Your task to perform on an android device: create a new album in the google photos Image 0: 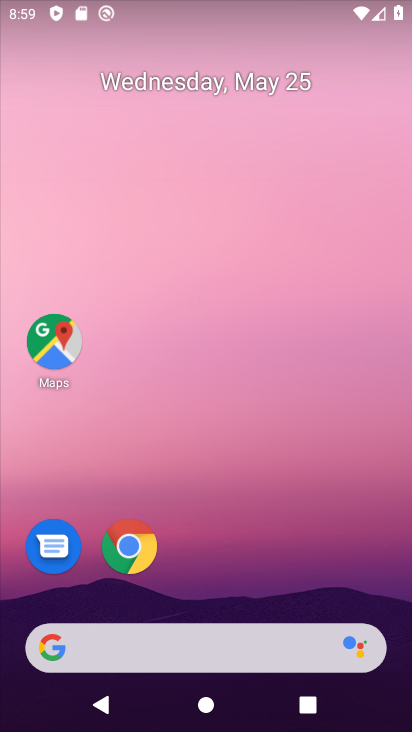
Step 0: drag from (288, 411) to (288, 279)
Your task to perform on an android device: create a new album in the google photos Image 1: 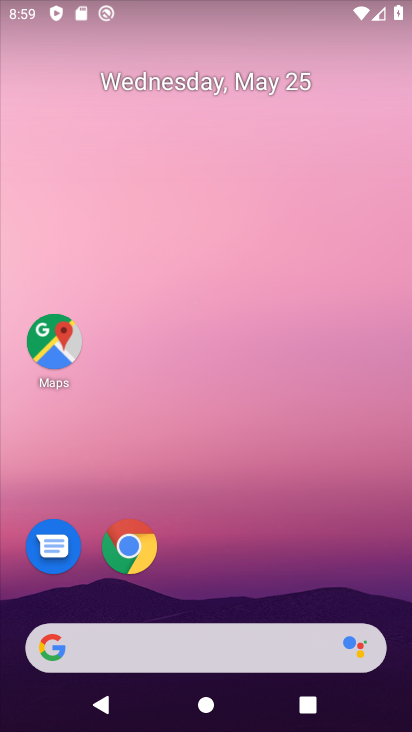
Step 1: drag from (217, 548) to (239, 256)
Your task to perform on an android device: create a new album in the google photos Image 2: 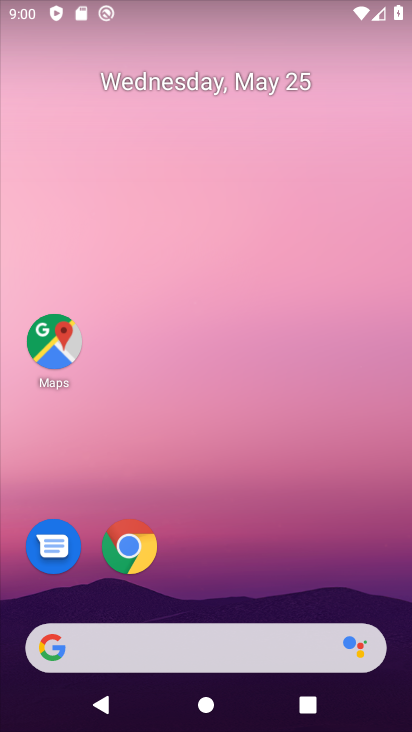
Step 2: drag from (277, 540) to (218, 146)
Your task to perform on an android device: create a new album in the google photos Image 3: 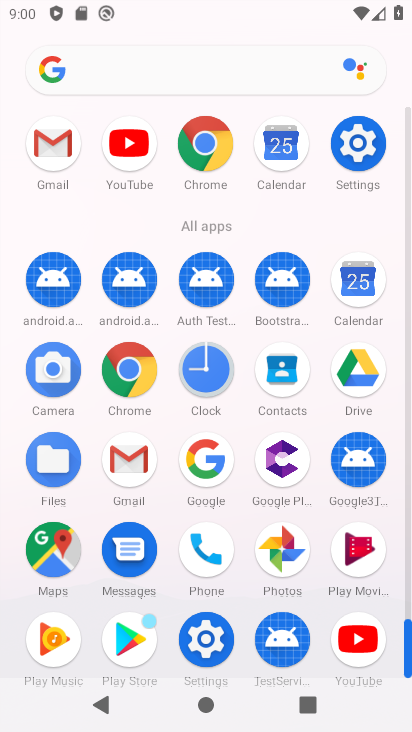
Step 3: click (285, 544)
Your task to perform on an android device: create a new album in the google photos Image 4: 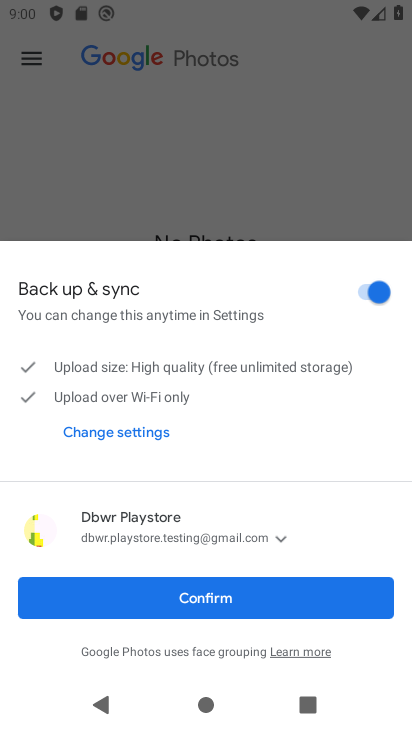
Step 4: click (169, 577)
Your task to perform on an android device: create a new album in the google photos Image 5: 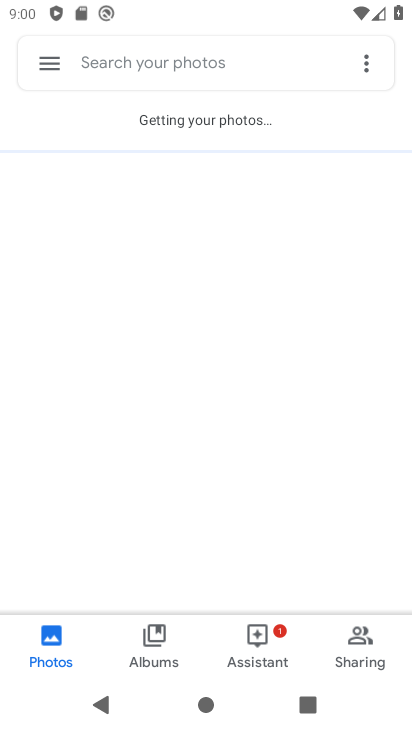
Step 5: click (154, 633)
Your task to perform on an android device: create a new album in the google photos Image 6: 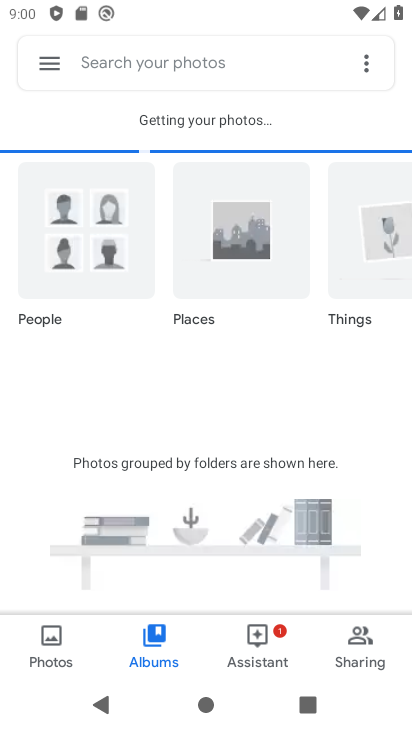
Step 6: click (52, 639)
Your task to perform on an android device: create a new album in the google photos Image 7: 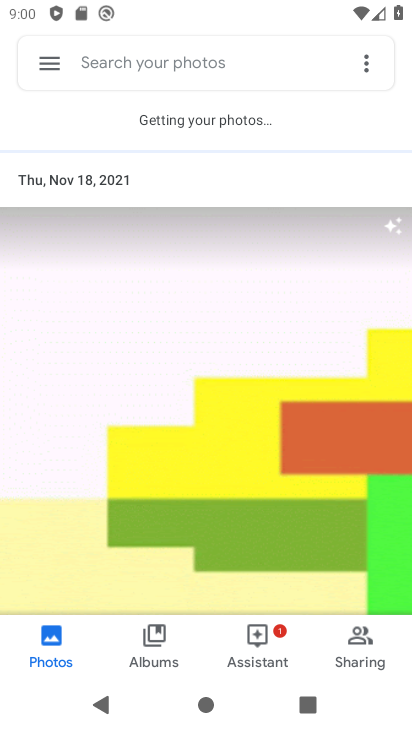
Step 7: click (153, 648)
Your task to perform on an android device: create a new album in the google photos Image 8: 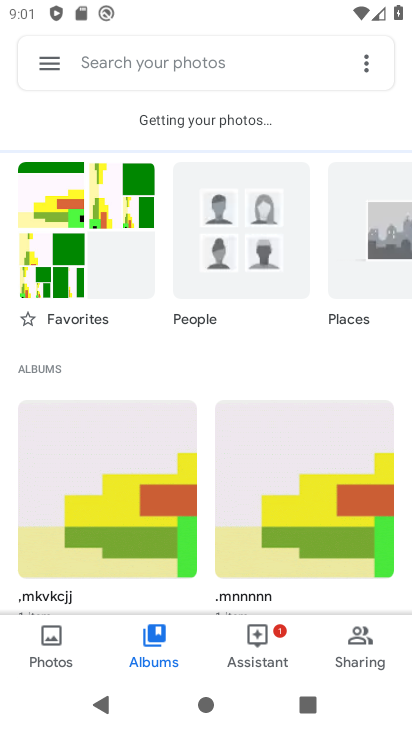
Step 8: click (87, 467)
Your task to perform on an android device: create a new album in the google photos Image 9: 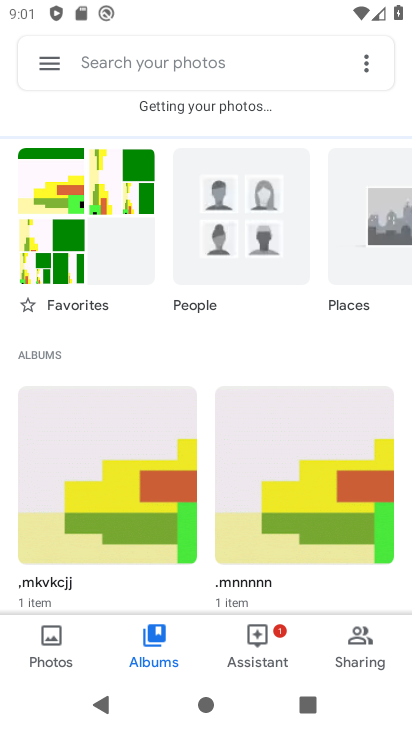
Step 9: click (55, 198)
Your task to perform on an android device: create a new album in the google photos Image 10: 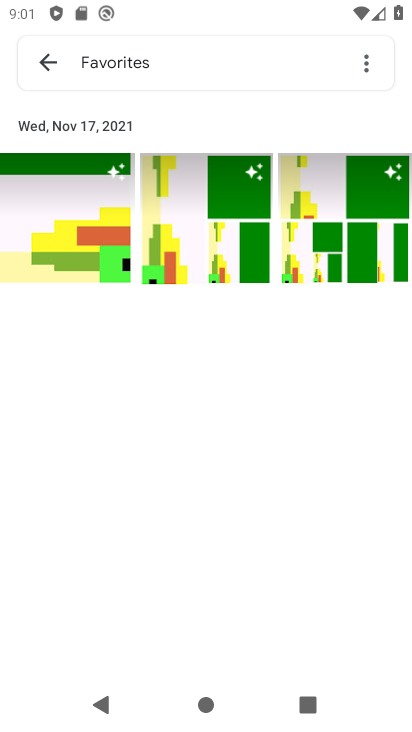
Step 10: click (79, 197)
Your task to perform on an android device: create a new album in the google photos Image 11: 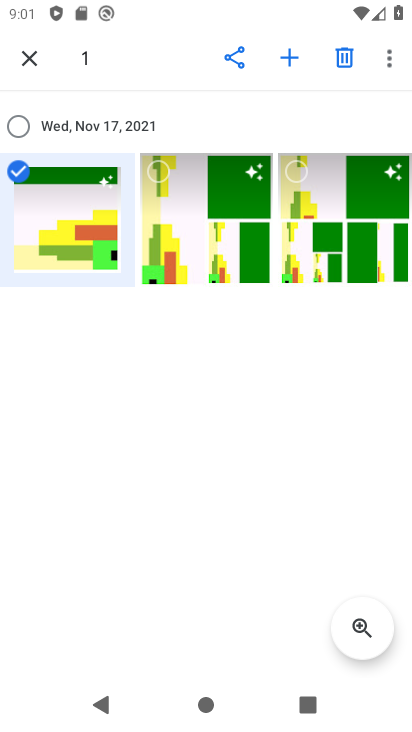
Step 11: click (286, 51)
Your task to perform on an android device: create a new album in the google photos Image 12: 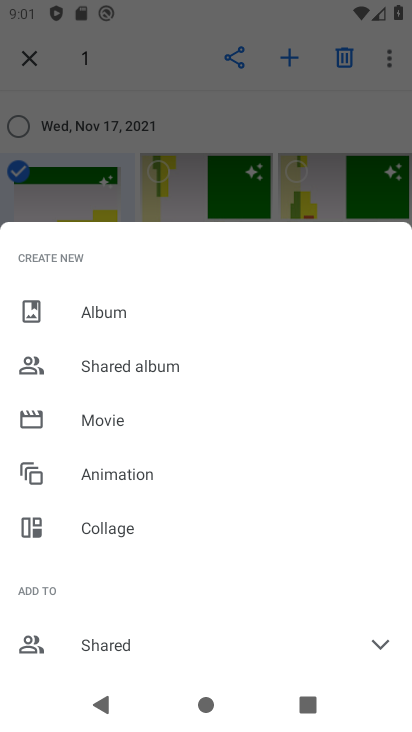
Step 12: click (124, 319)
Your task to perform on an android device: create a new album in the google photos Image 13: 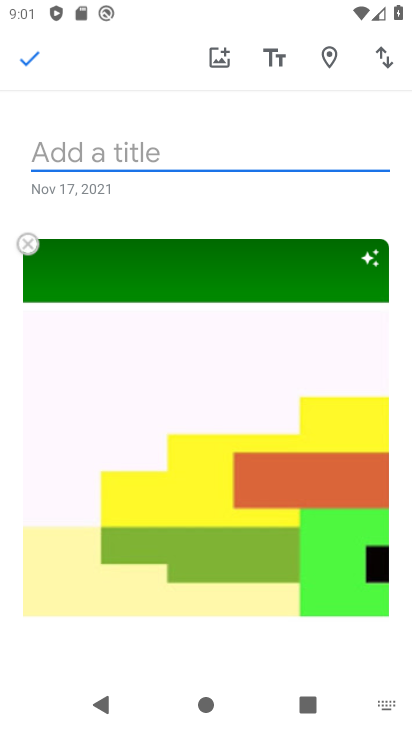
Step 13: click (167, 141)
Your task to perform on an android device: create a new album in the google photos Image 14: 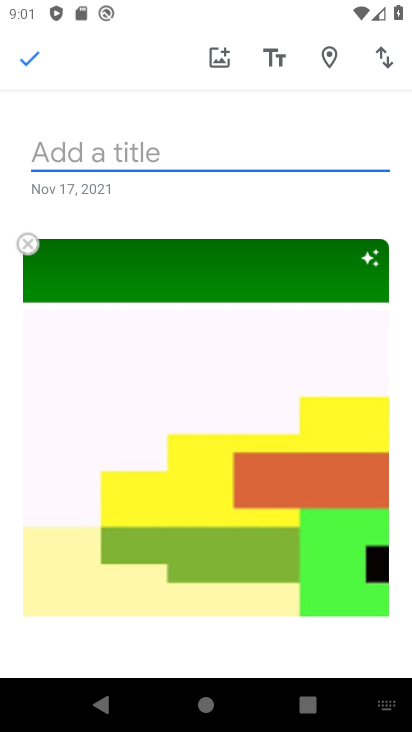
Step 14: type "aaanuj"
Your task to perform on an android device: create a new album in the google photos Image 15: 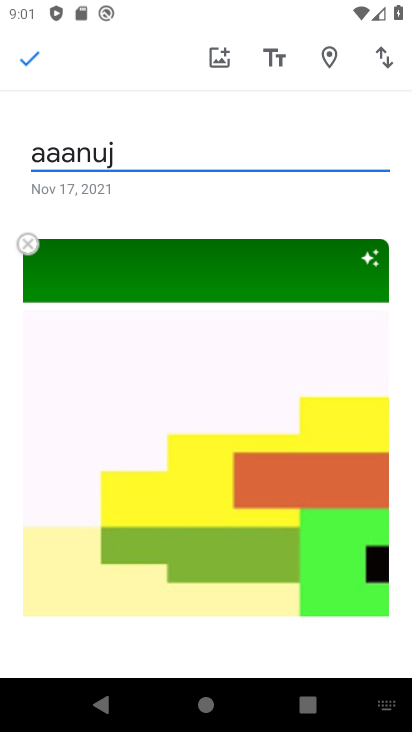
Step 15: click (38, 56)
Your task to perform on an android device: create a new album in the google photos Image 16: 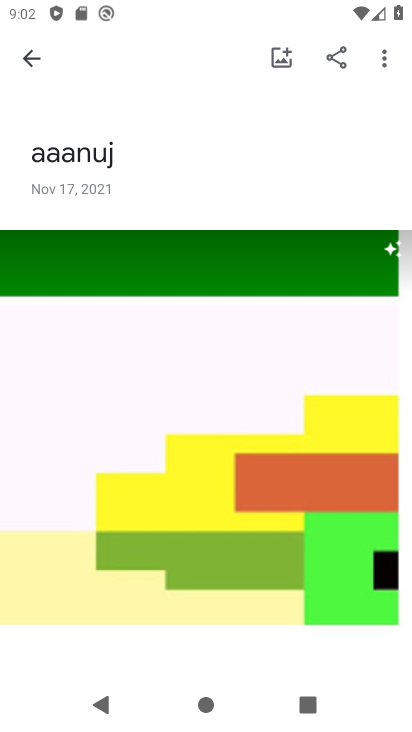
Step 16: task complete